Your task to perform on an android device: open device folders in google photos Image 0: 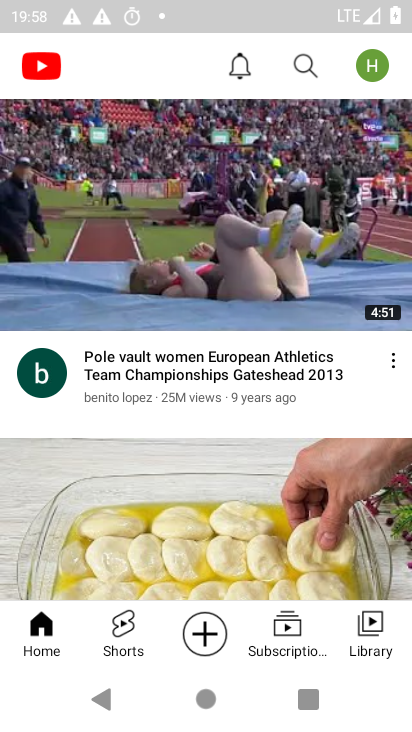
Step 0: press home button
Your task to perform on an android device: open device folders in google photos Image 1: 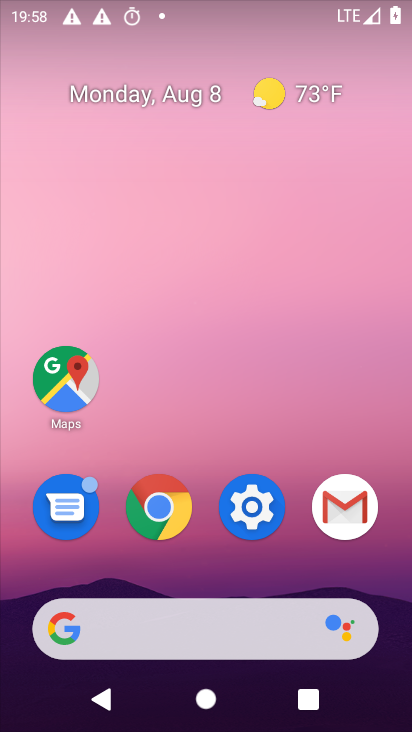
Step 1: drag from (284, 679) to (203, 122)
Your task to perform on an android device: open device folders in google photos Image 2: 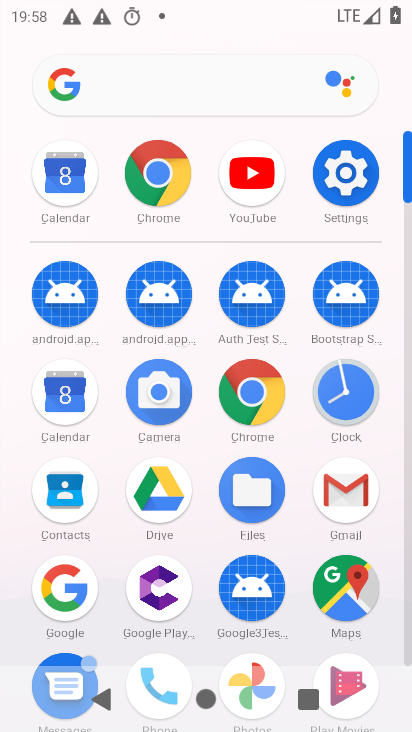
Step 2: click (250, 654)
Your task to perform on an android device: open device folders in google photos Image 3: 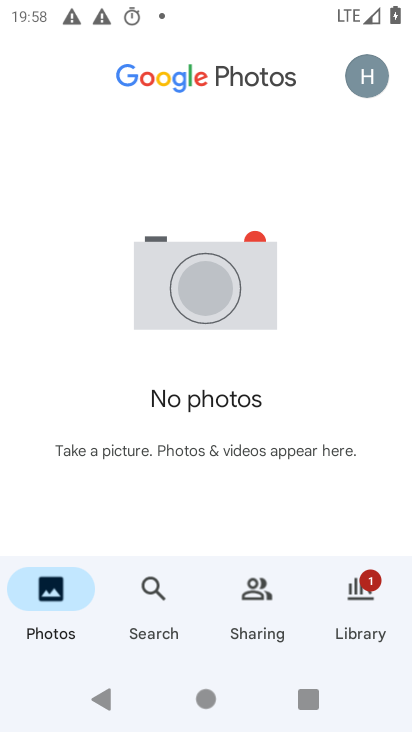
Step 3: click (147, 576)
Your task to perform on an android device: open device folders in google photos Image 4: 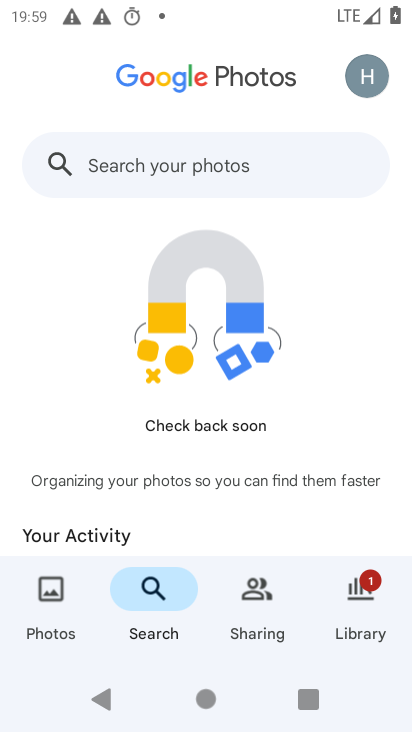
Step 4: click (152, 167)
Your task to perform on an android device: open device folders in google photos Image 5: 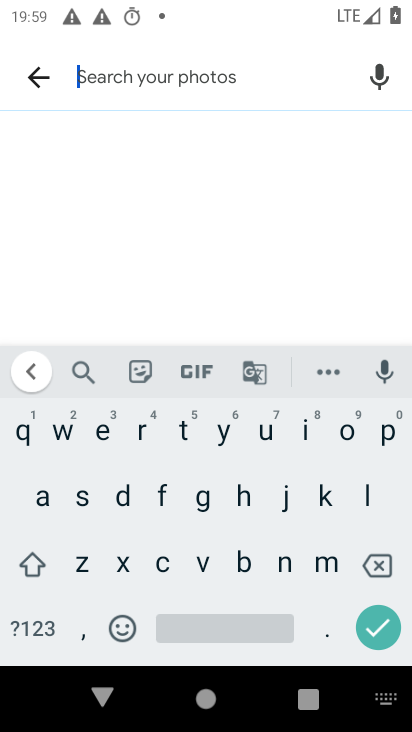
Step 5: click (121, 495)
Your task to perform on an android device: open device folders in google photos Image 6: 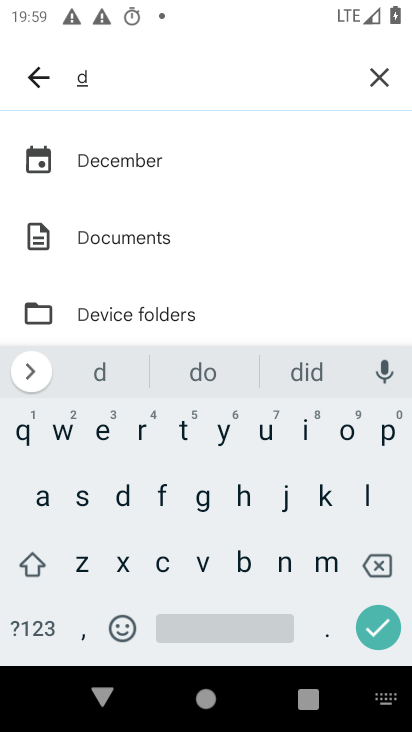
Step 6: click (145, 322)
Your task to perform on an android device: open device folders in google photos Image 7: 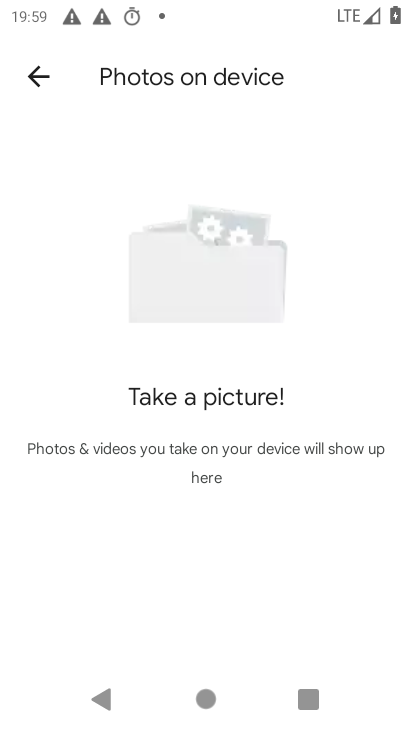
Step 7: press home button
Your task to perform on an android device: open device folders in google photos Image 8: 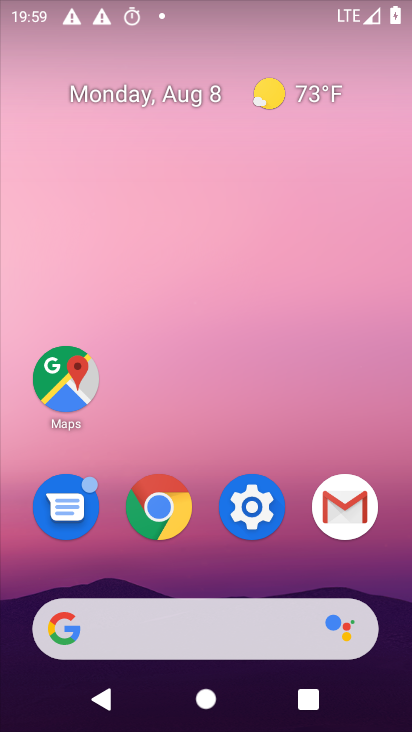
Step 8: drag from (290, 673) to (147, 170)
Your task to perform on an android device: open device folders in google photos Image 9: 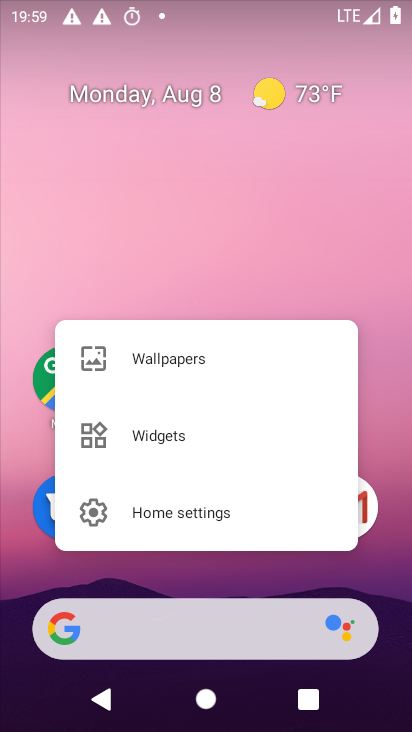
Step 9: click (160, 206)
Your task to perform on an android device: open device folders in google photos Image 10: 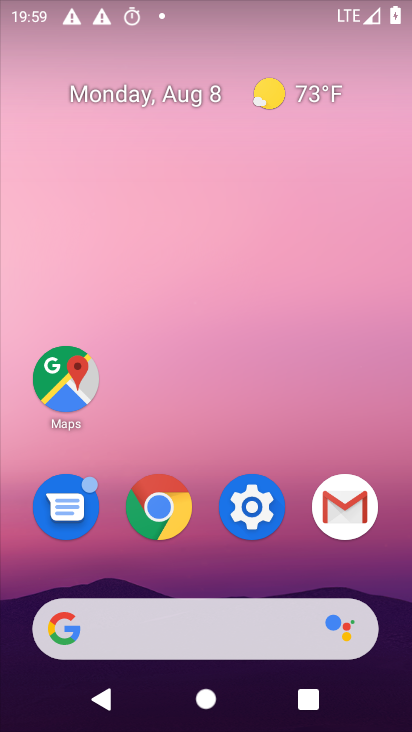
Step 10: drag from (192, 666) to (167, 99)
Your task to perform on an android device: open device folders in google photos Image 11: 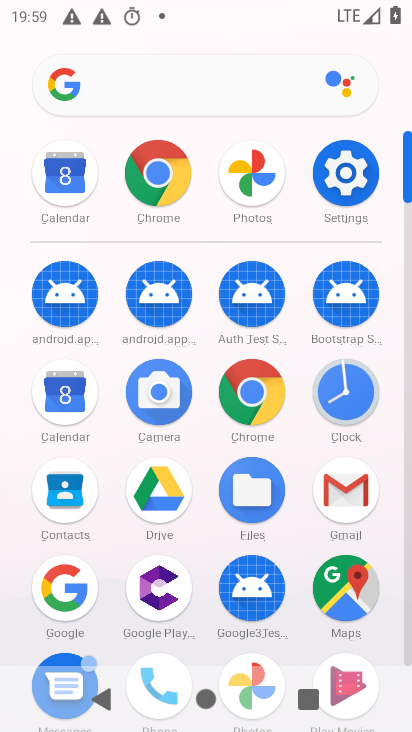
Step 11: click (250, 660)
Your task to perform on an android device: open device folders in google photos Image 12: 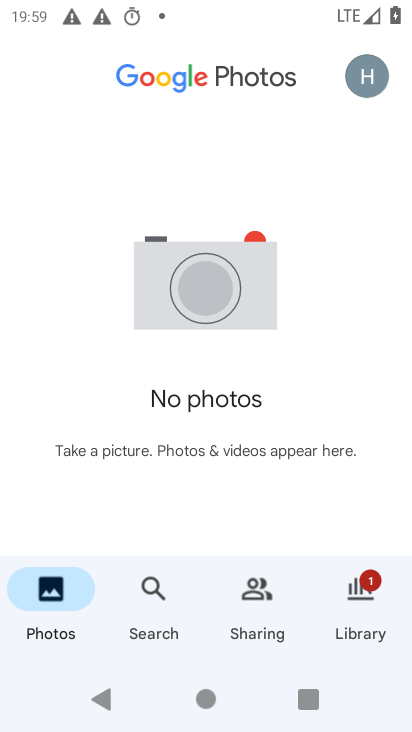
Step 12: click (151, 577)
Your task to perform on an android device: open device folders in google photos Image 13: 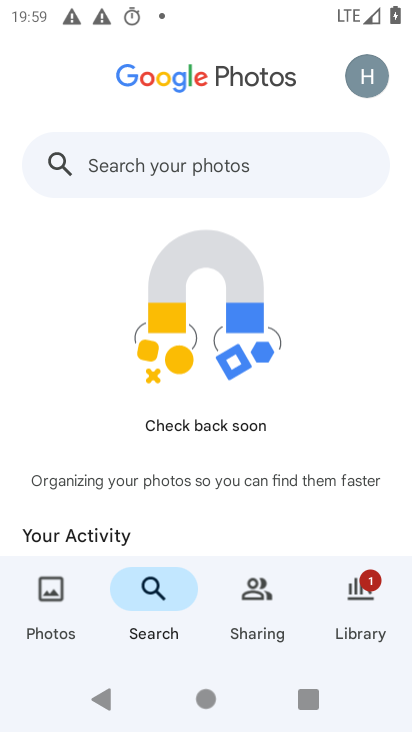
Step 13: click (157, 177)
Your task to perform on an android device: open device folders in google photos Image 14: 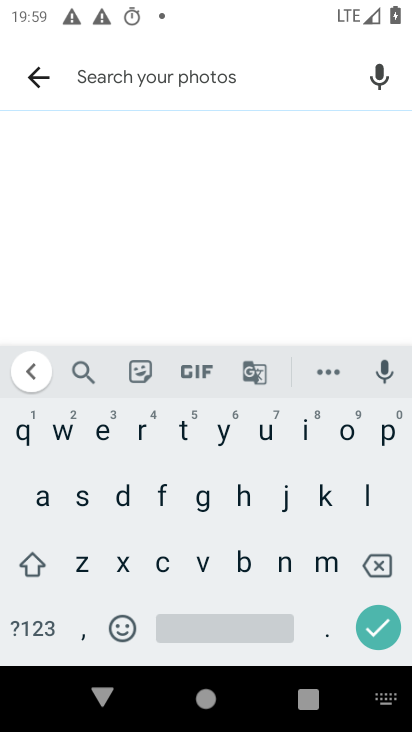
Step 14: click (111, 504)
Your task to perform on an android device: open device folders in google photos Image 15: 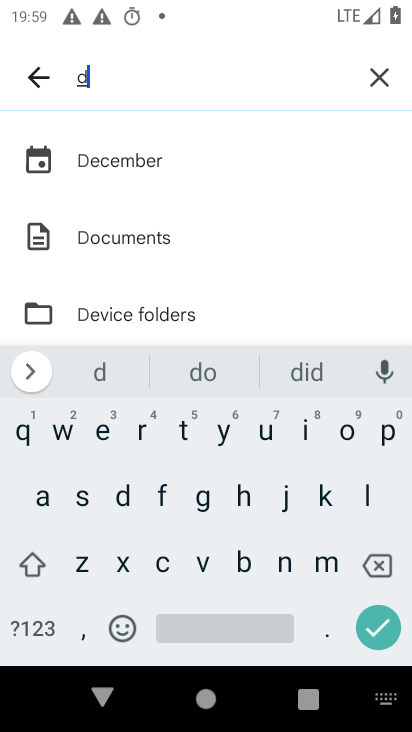
Step 15: click (99, 427)
Your task to perform on an android device: open device folders in google photos Image 16: 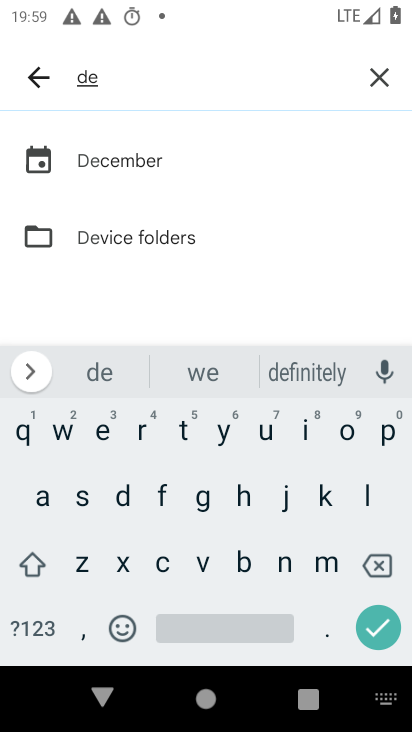
Step 16: click (104, 243)
Your task to perform on an android device: open device folders in google photos Image 17: 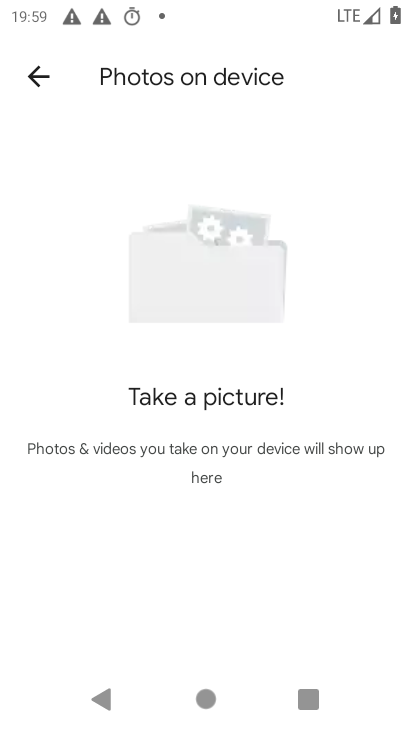
Step 17: task complete